Your task to perform on an android device: change the clock display to digital Image 0: 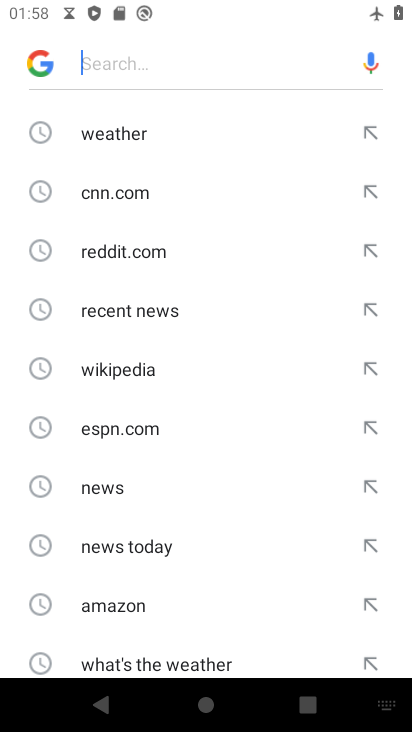
Step 0: press home button
Your task to perform on an android device: change the clock display to digital Image 1: 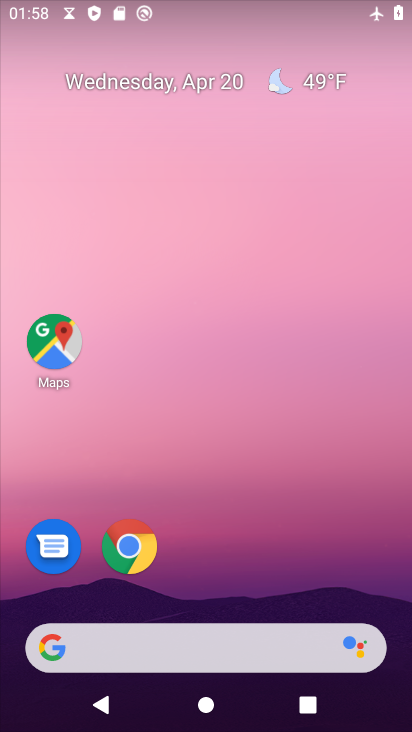
Step 1: drag from (258, 559) to (278, 261)
Your task to perform on an android device: change the clock display to digital Image 2: 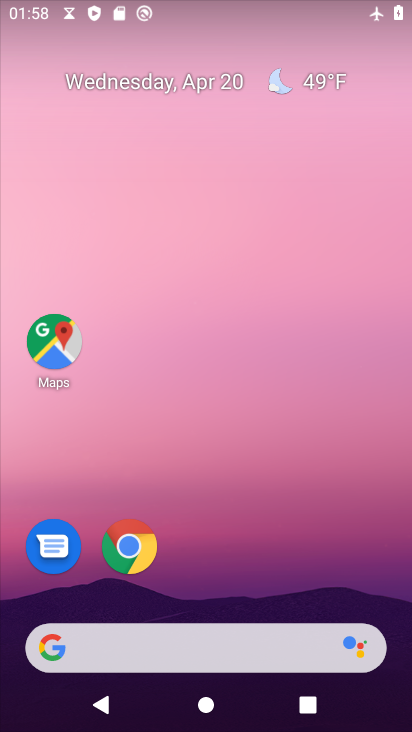
Step 2: drag from (231, 586) to (315, 122)
Your task to perform on an android device: change the clock display to digital Image 3: 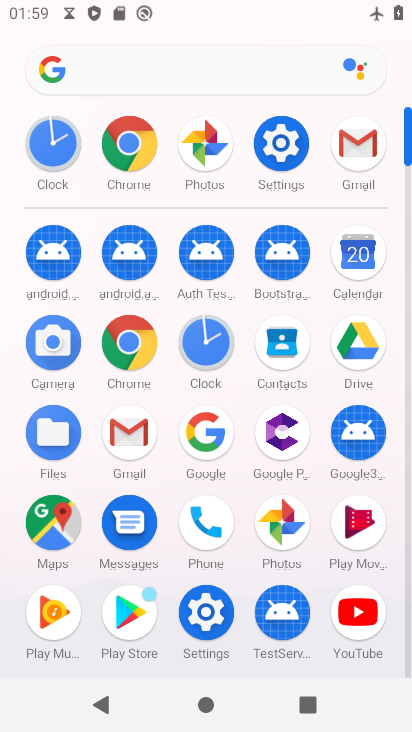
Step 3: click (199, 332)
Your task to perform on an android device: change the clock display to digital Image 4: 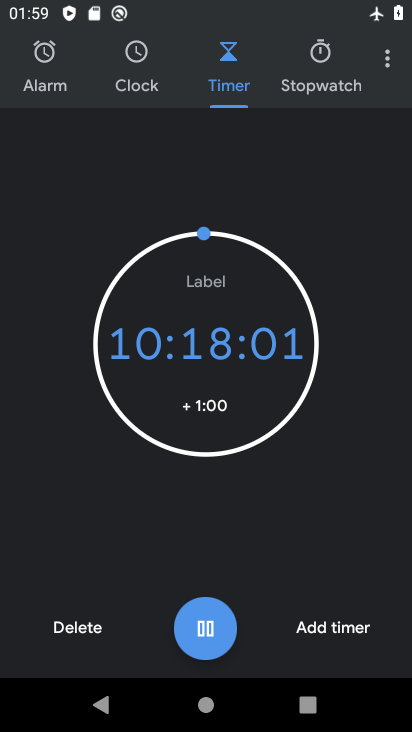
Step 4: click (380, 51)
Your task to perform on an android device: change the clock display to digital Image 5: 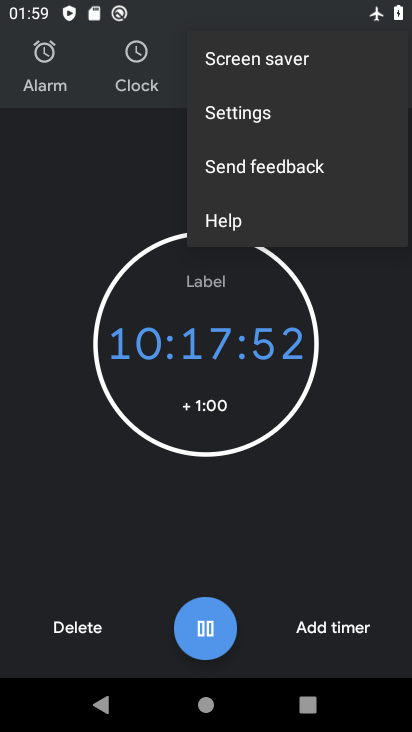
Step 5: click (257, 115)
Your task to perform on an android device: change the clock display to digital Image 6: 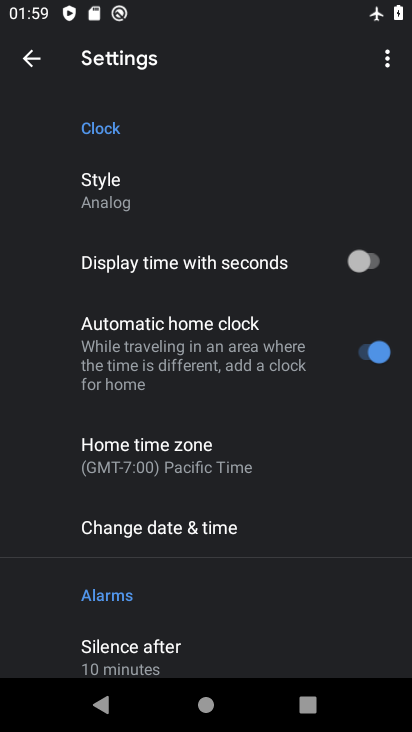
Step 6: drag from (179, 553) to (186, 490)
Your task to perform on an android device: change the clock display to digital Image 7: 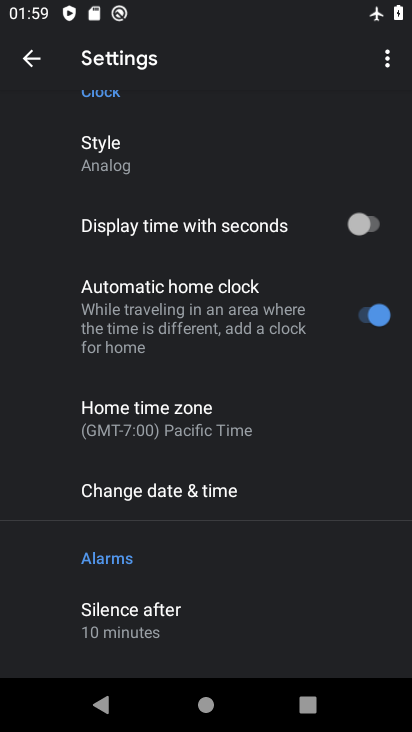
Step 7: click (163, 159)
Your task to perform on an android device: change the clock display to digital Image 8: 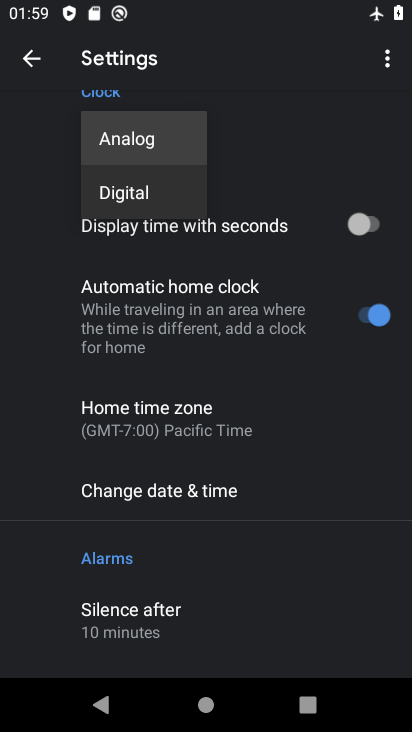
Step 8: click (149, 199)
Your task to perform on an android device: change the clock display to digital Image 9: 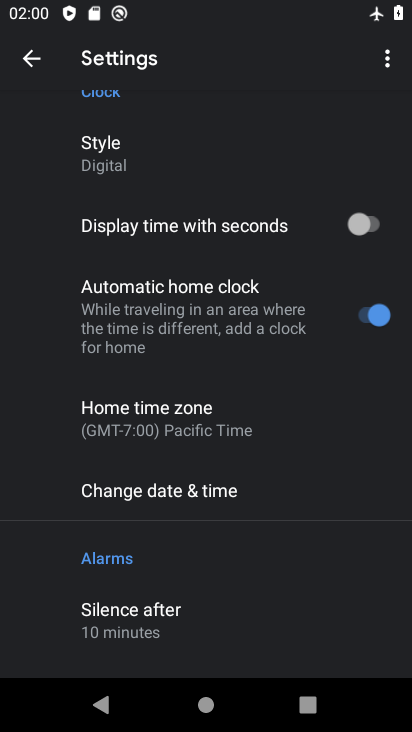
Step 9: task complete